Your task to perform on an android device: Go to internet settings Image 0: 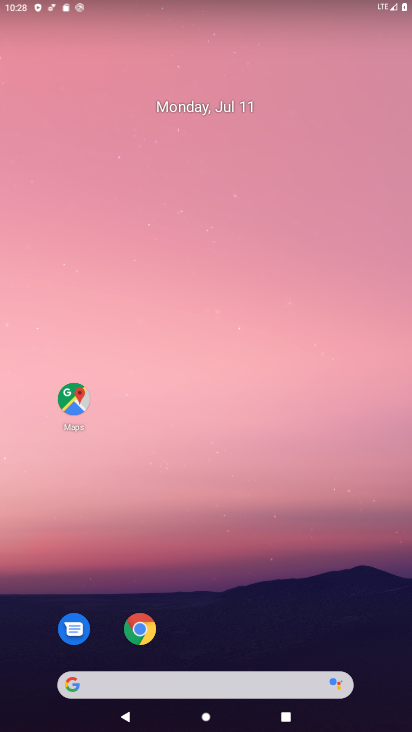
Step 0: drag from (218, 664) to (268, 195)
Your task to perform on an android device: Go to internet settings Image 1: 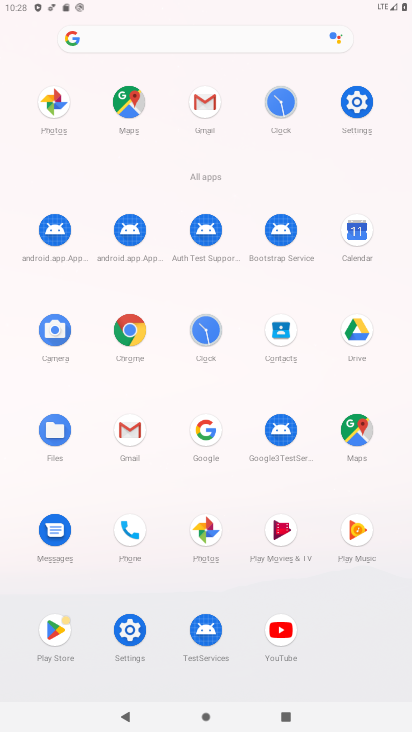
Step 1: click (126, 632)
Your task to perform on an android device: Go to internet settings Image 2: 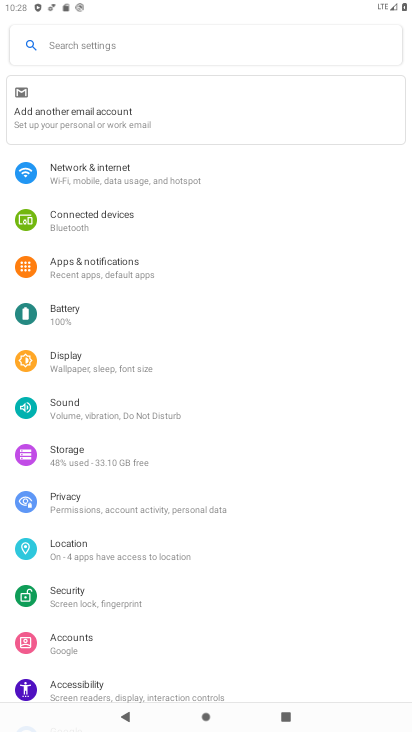
Step 2: click (127, 177)
Your task to perform on an android device: Go to internet settings Image 3: 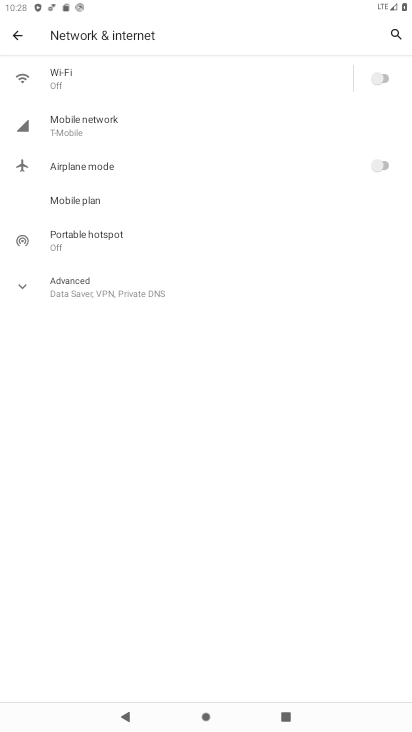
Step 3: click (110, 122)
Your task to perform on an android device: Go to internet settings Image 4: 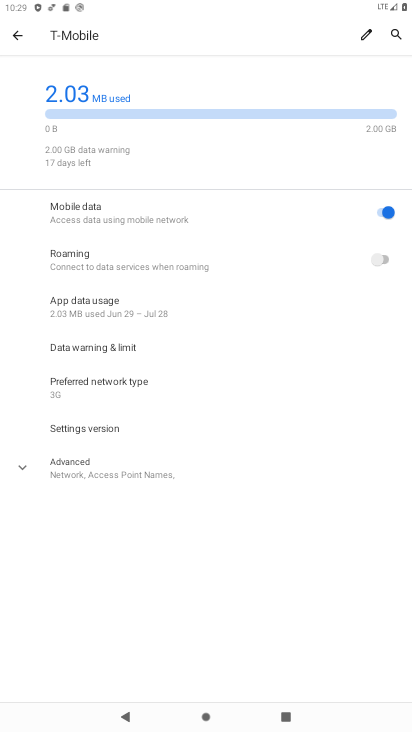
Step 4: task complete